Your task to perform on an android device: See recent photos Image 0: 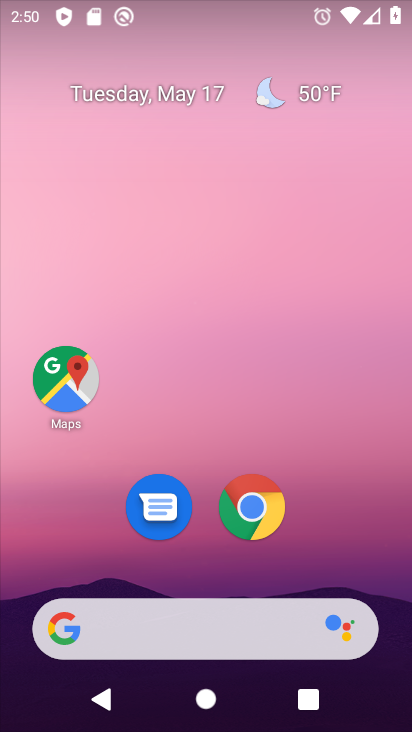
Step 0: drag from (319, 548) to (170, 5)
Your task to perform on an android device: See recent photos Image 1: 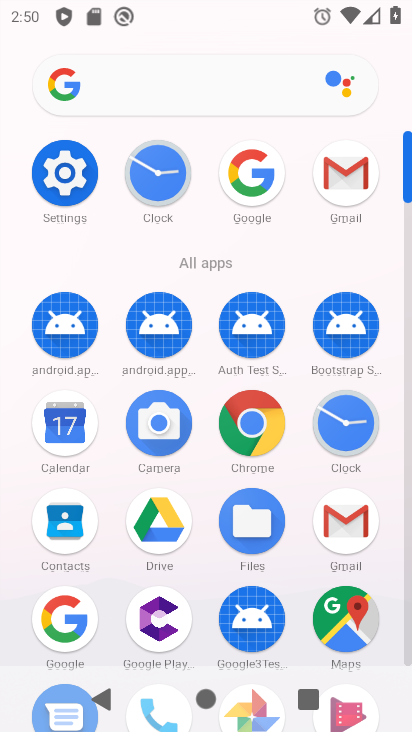
Step 1: drag from (211, 606) to (203, 298)
Your task to perform on an android device: See recent photos Image 2: 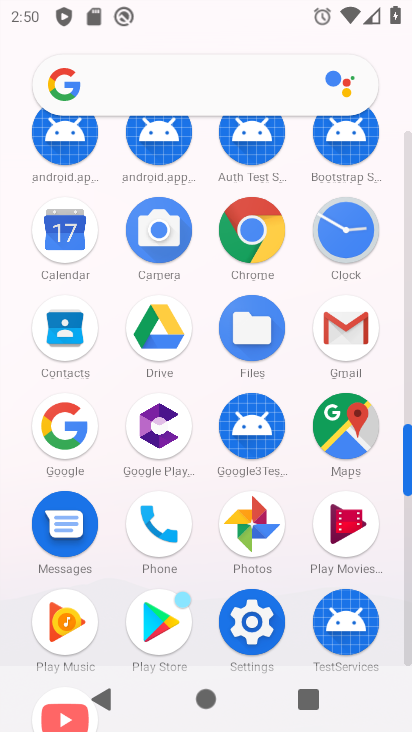
Step 2: click (246, 547)
Your task to perform on an android device: See recent photos Image 3: 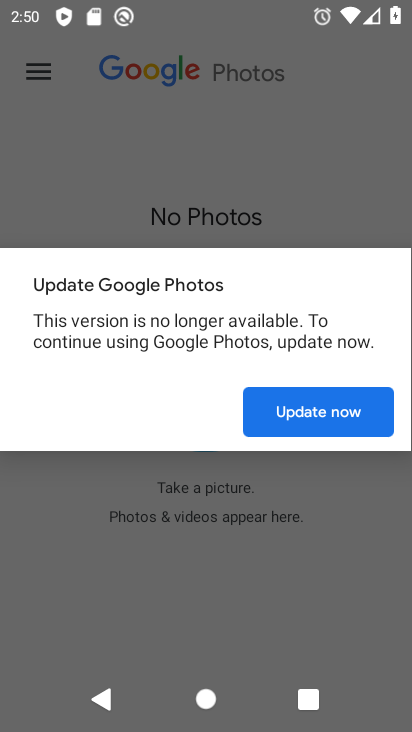
Step 3: click (281, 412)
Your task to perform on an android device: See recent photos Image 4: 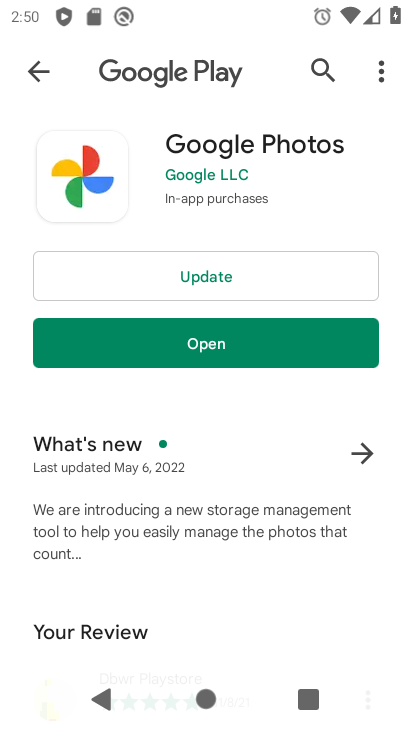
Step 4: click (208, 274)
Your task to perform on an android device: See recent photos Image 5: 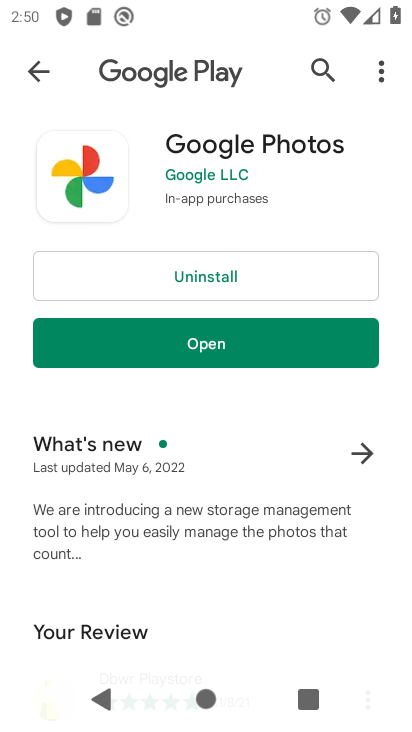
Step 5: click (221, 343)
Your task to perform on an android device: See recent photos Image 6: 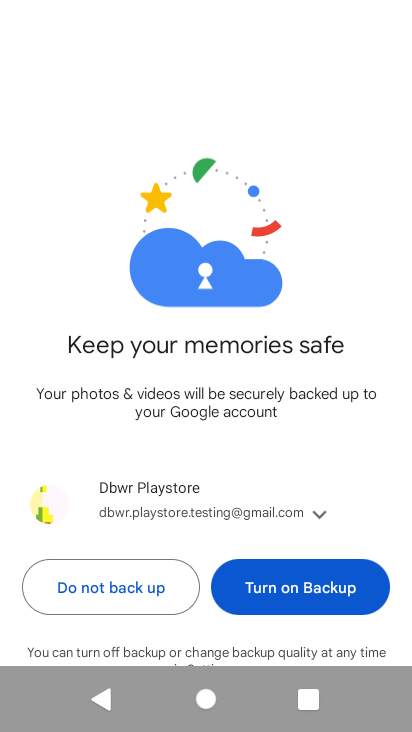
Step 6: drag from (202, 520) to (201, 226)
Your task to perform on an android device: See recent photos Image 7: 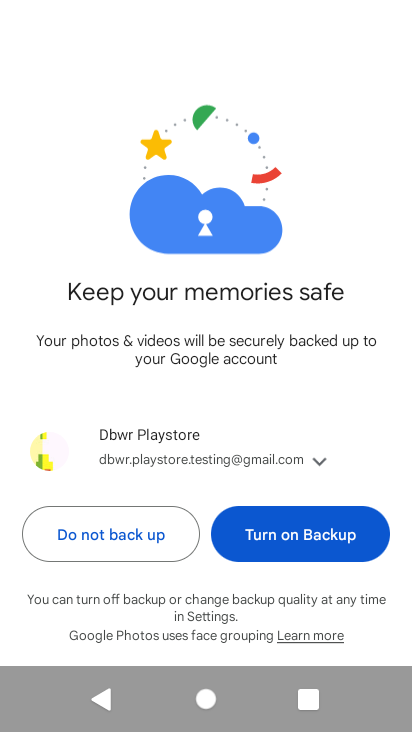
Step 7: press home button
Your task to perform on an android device: See recent photos Image 8: 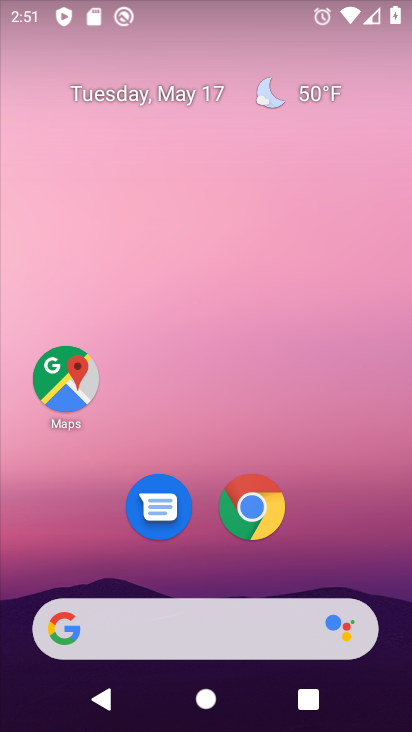
Step 8: drag from (333, 494) to (218, 34)
Your task to perform on an android device: See recent photos Image 9: 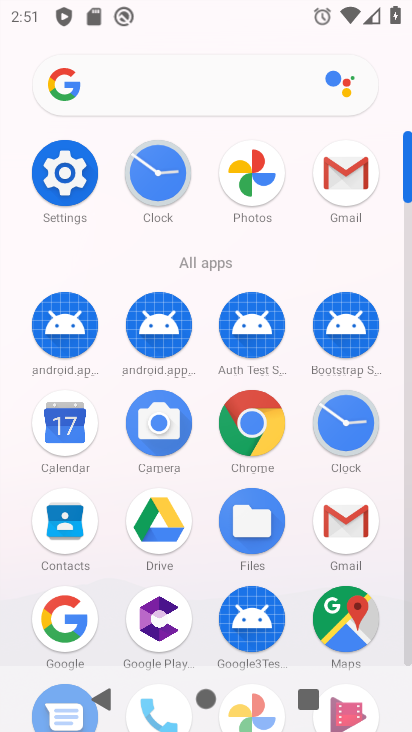
Step 9: drag from (194, 419) to (184, 289)
Your task to perform on an android device: See recent photos Image 10: 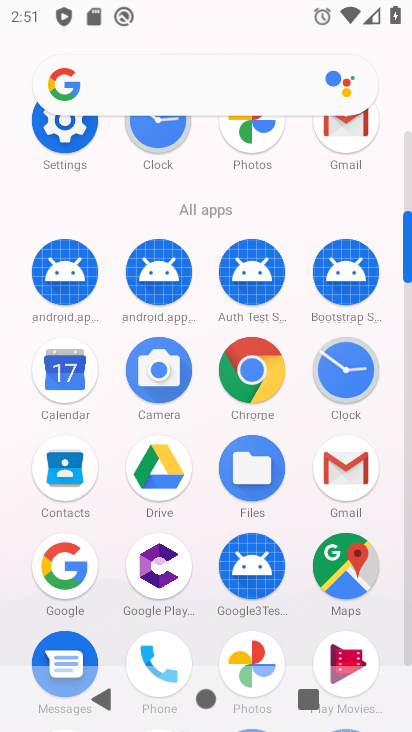
Step 10: click (257, 650)
Your task to perform on an android device: See recent photos Image 11: 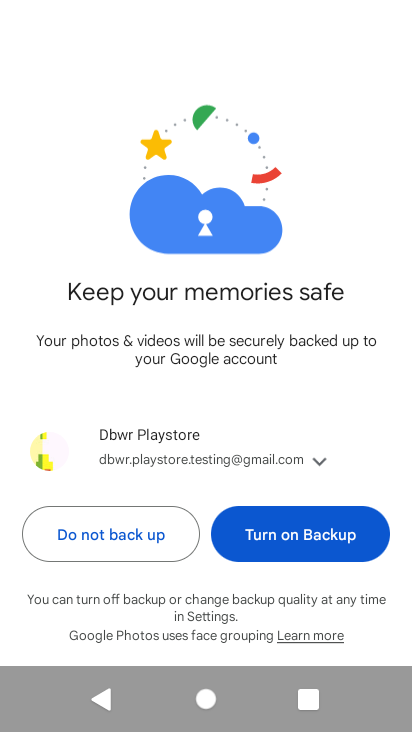
Step 11: click (116, 535)
Your task to perform on an android device: See recent photos Image 12: 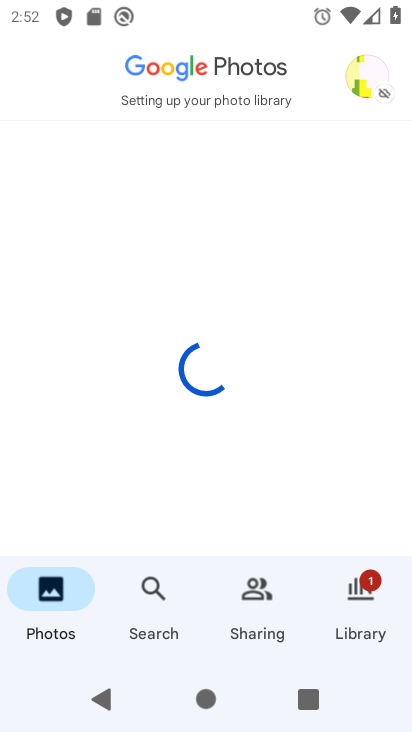
Step 12: click (155, 586)
Your task to perform on an android device: See recent photos Image 13: 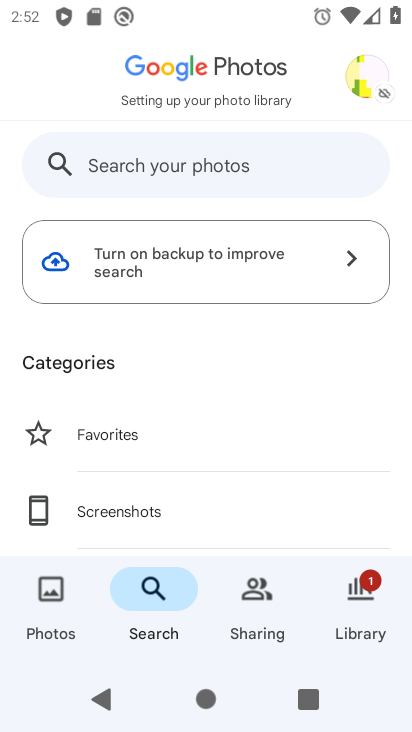
Step 13: click (172, 164)
Your task to perform on an android device: See recent photos Image 14: 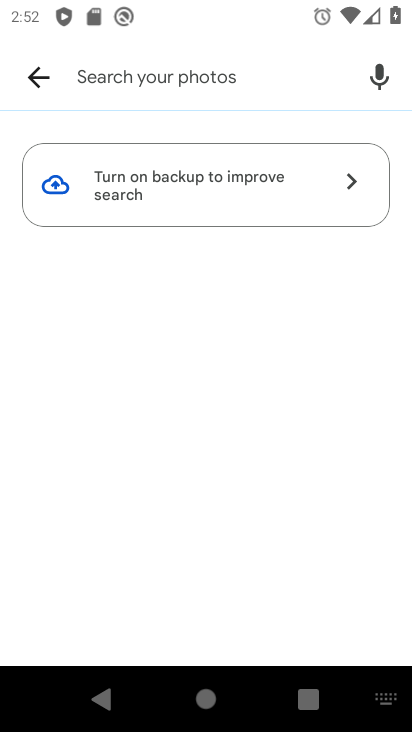
Step 14: type "recent "
Your task to perform on an android device: See recent photos Image 15: 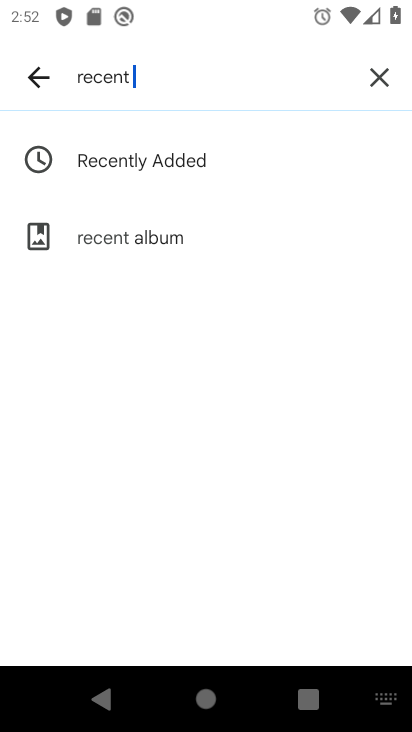
Step 15: click (162, 234)
Your task to perform on an android device: See recent photos Image 16: 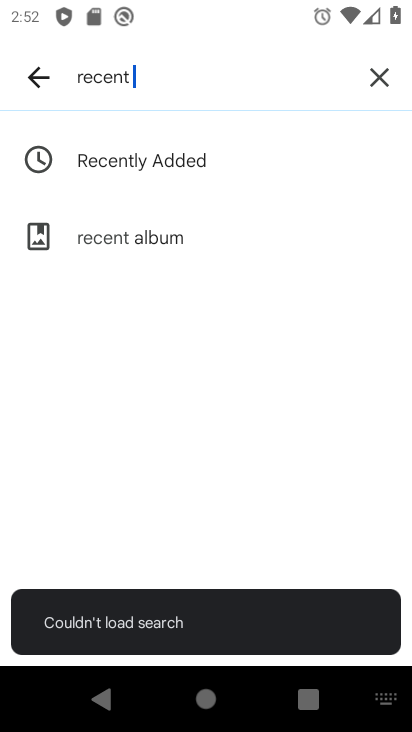
Step 16: click (160, 173)
Your task to perform on an android device: See recent photos Image 17: 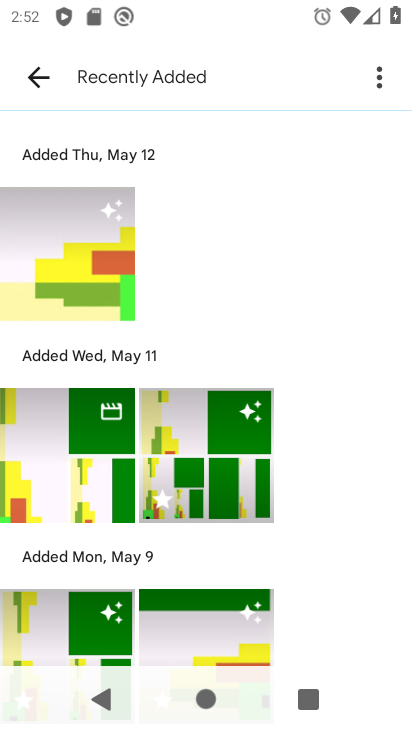
Step 17: task complete